Your task to perform on an android device: check android version Image 0: 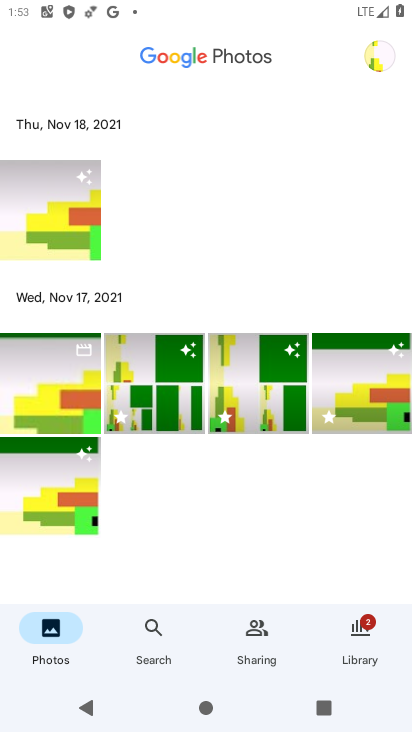
Step 0: press home button
Your task to perform on an android device: check android version Image 1: 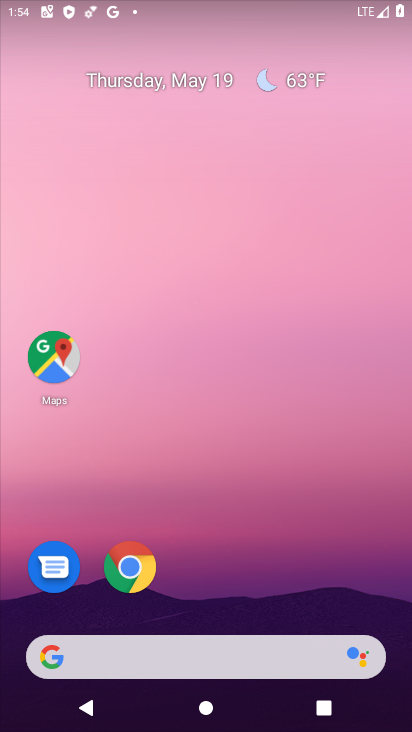
Step 1: drag from (280, 596) to (374, 3)
Your task to perform on an android device: check android version Image 2: 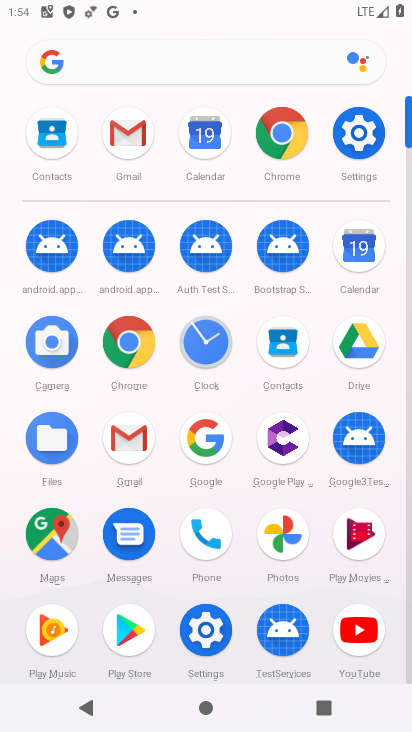
Step 2: click (368, 131)
Your task to perform on an android device: check android version Image 3: 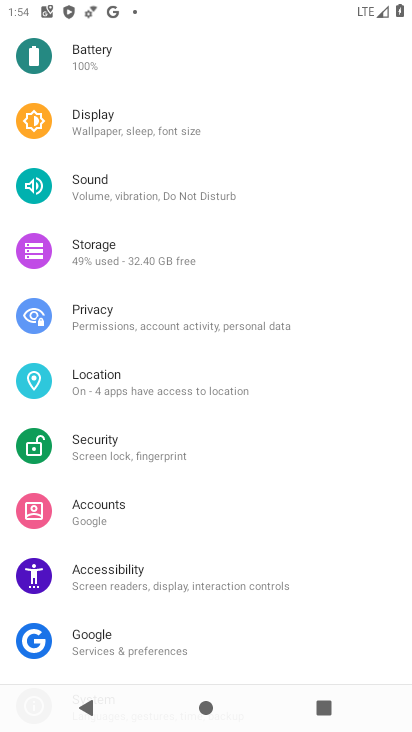
Step 3: drag from (88, 644) to (159, 118)
Your task to perform on an android device: check android version Image 4: 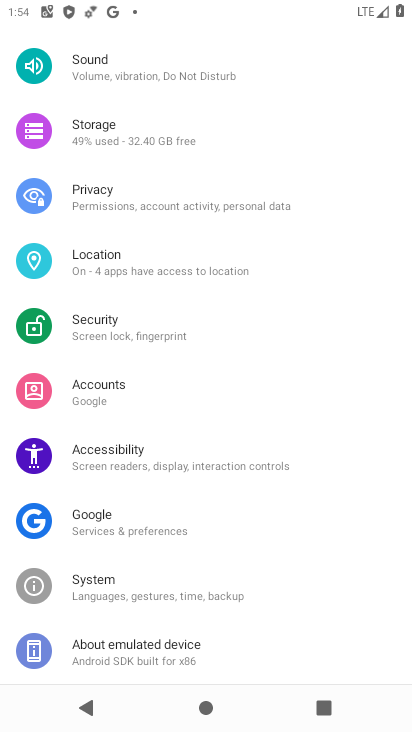
Step 4: click (141, 646)
Your task to perform on an android device: check android version Image 5: 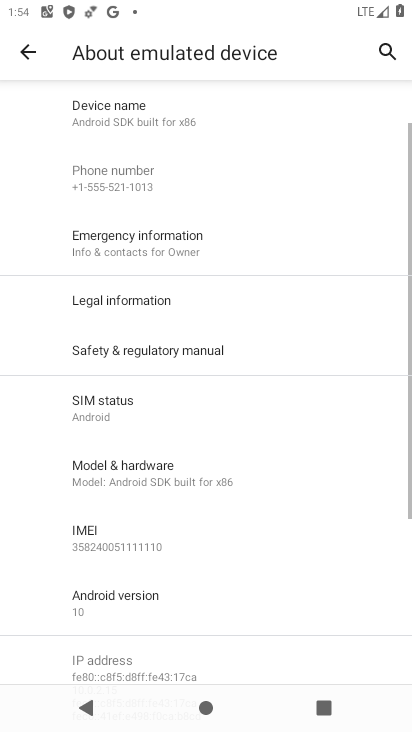
Step 5: task complete